Your task to perform on an android device: Go to settings Image 0: 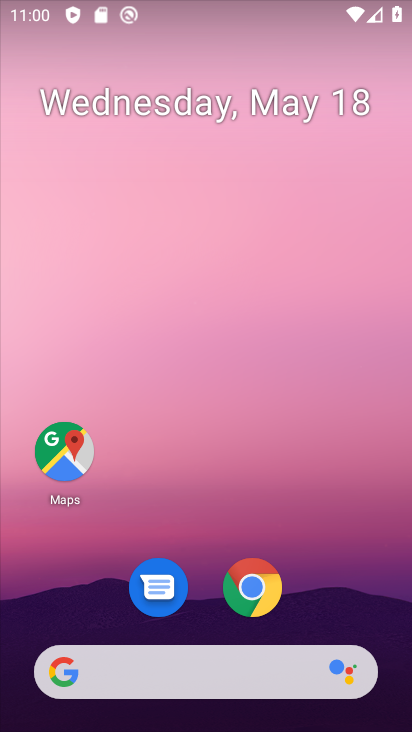
Step 0: drag from (391, 682) to (408, 276)
Your task to perform on an android device: Go to settings Image 1: 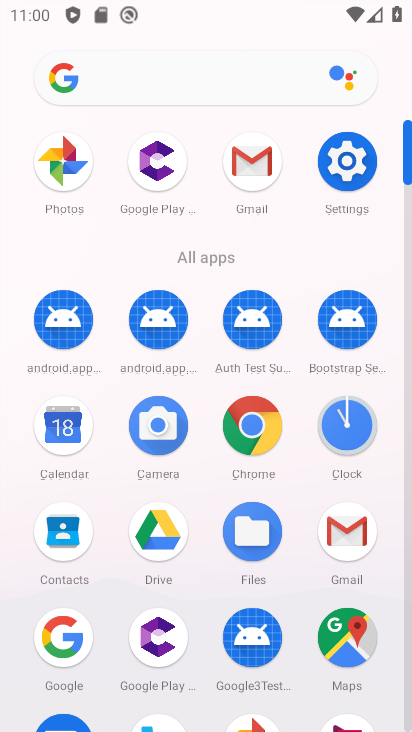
Step 1: click (352, 159)
Your task to perform on an android device: Go to settings Image 2: 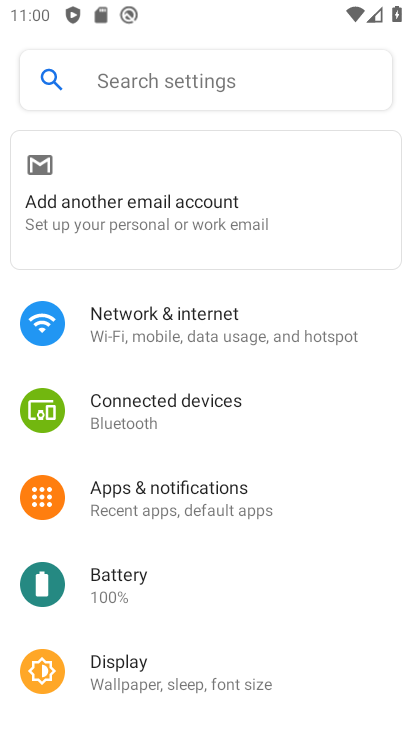
Step 2: task complete